Your task to perform on an android device: Go to Reddit.com Image 0: 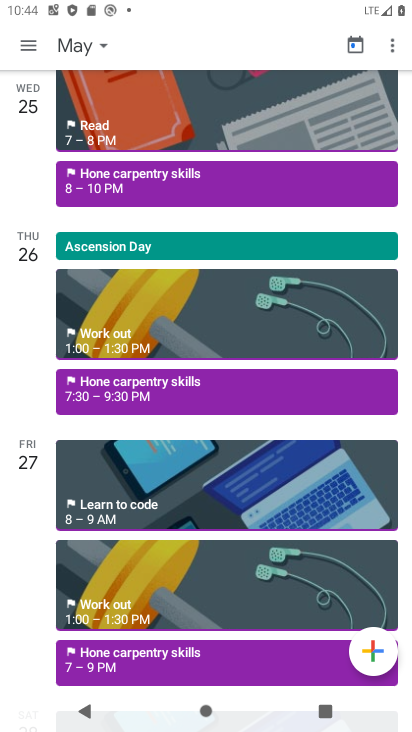
Step 0: press home button
Your task to perform on an android device: Go to Reddit.com Image 1: 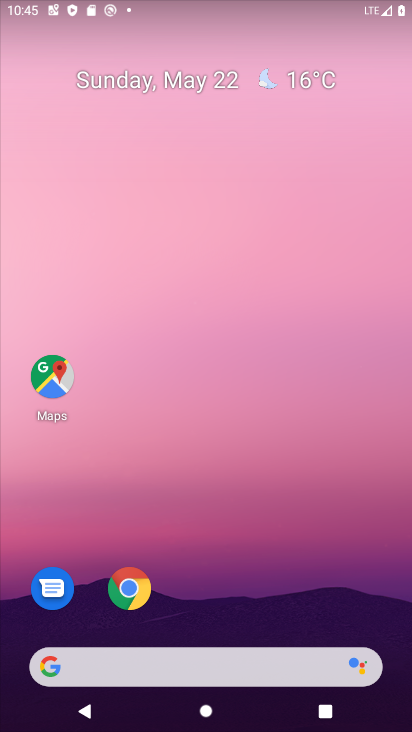
Step 1: click (137, 596)
Your task to perform on an android device: Go to Reddit.com Image 2: 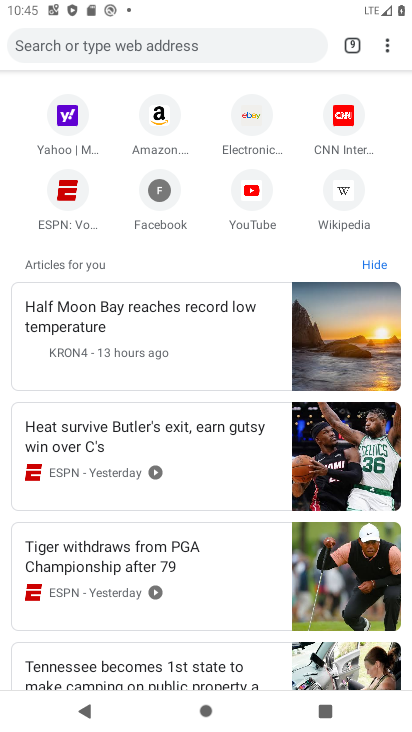
Step 2: click (174, 52)
Your task to perform on an android device: Go to Reddit.com Image 3: 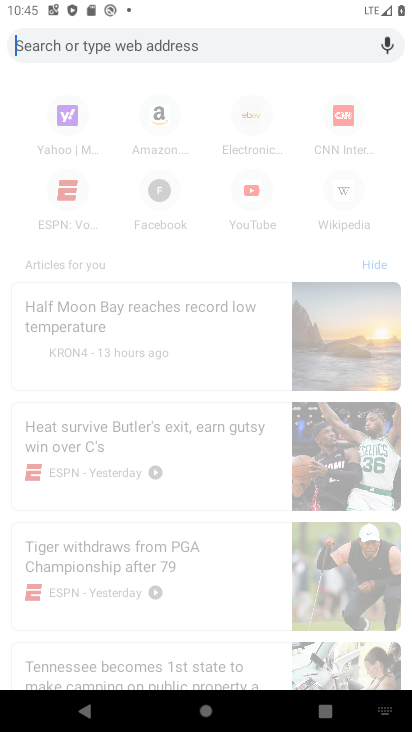
Step 3: type "Reddit.com"
Your task to perform on an android device: Go to Reddit.com Image 4: 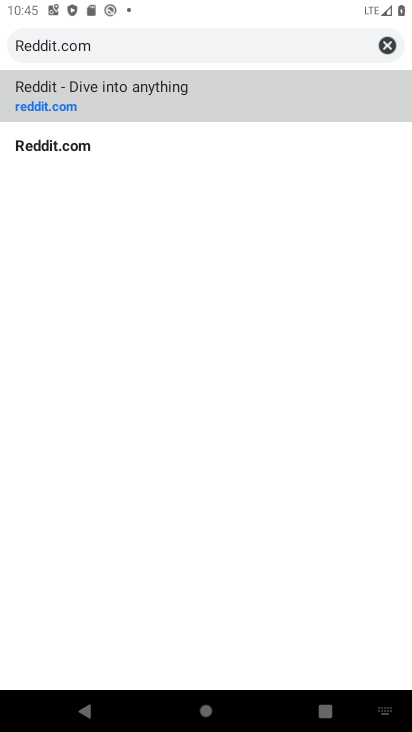
Step 4: click (75, 101)
Your task to perform on an android device: Go to Reddit.com Image 5: 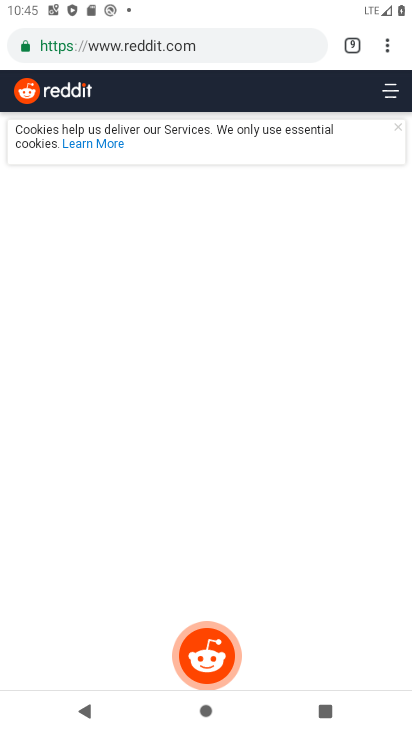
Step 5: task complete